Your task to perform on an android device: snooze an email in the gmail app Image 0: 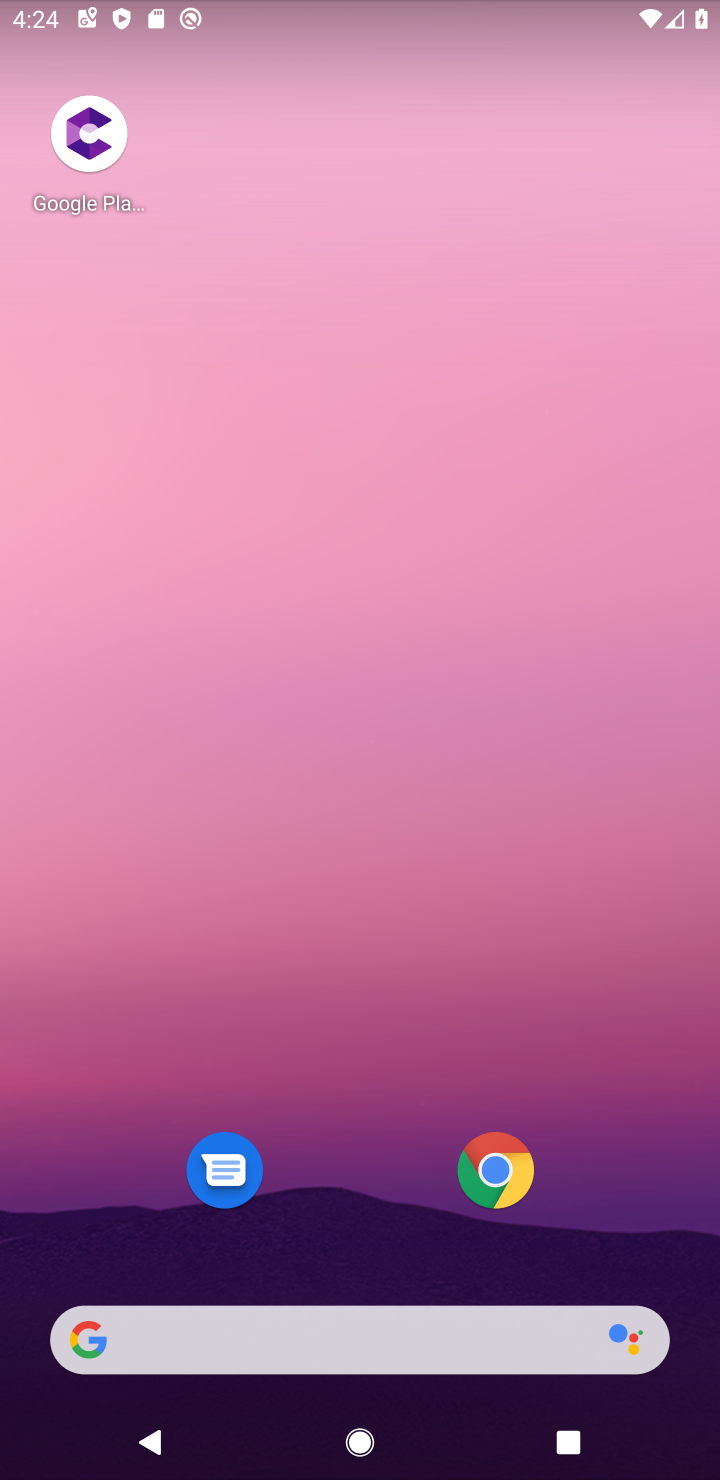
Step 0: drag from (350, 1315) to (405, 151)
Your task to perform on an android device: snooze an email in the gmail app Image 1: 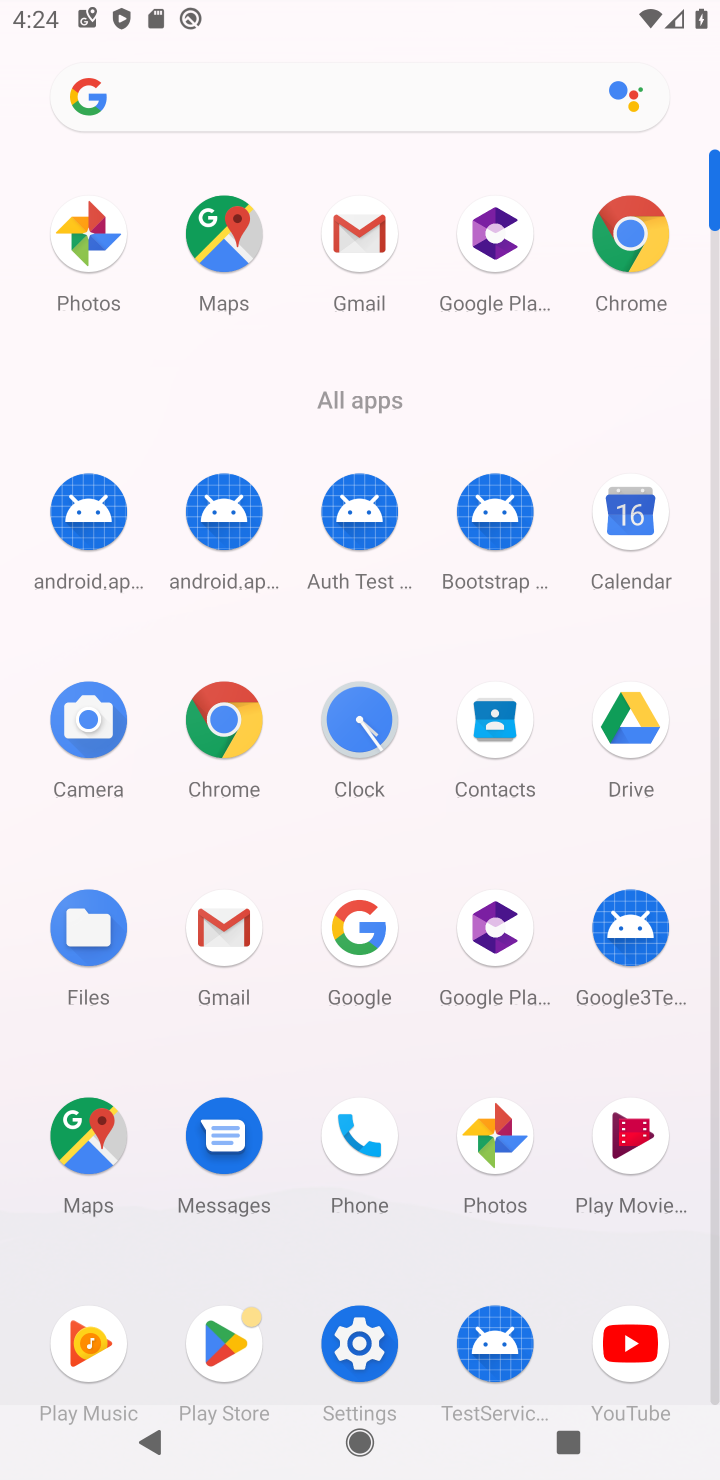
Step 1: click (244, 897)
Your task to perform on an android device: snooze an email in the gmail app Image 2: 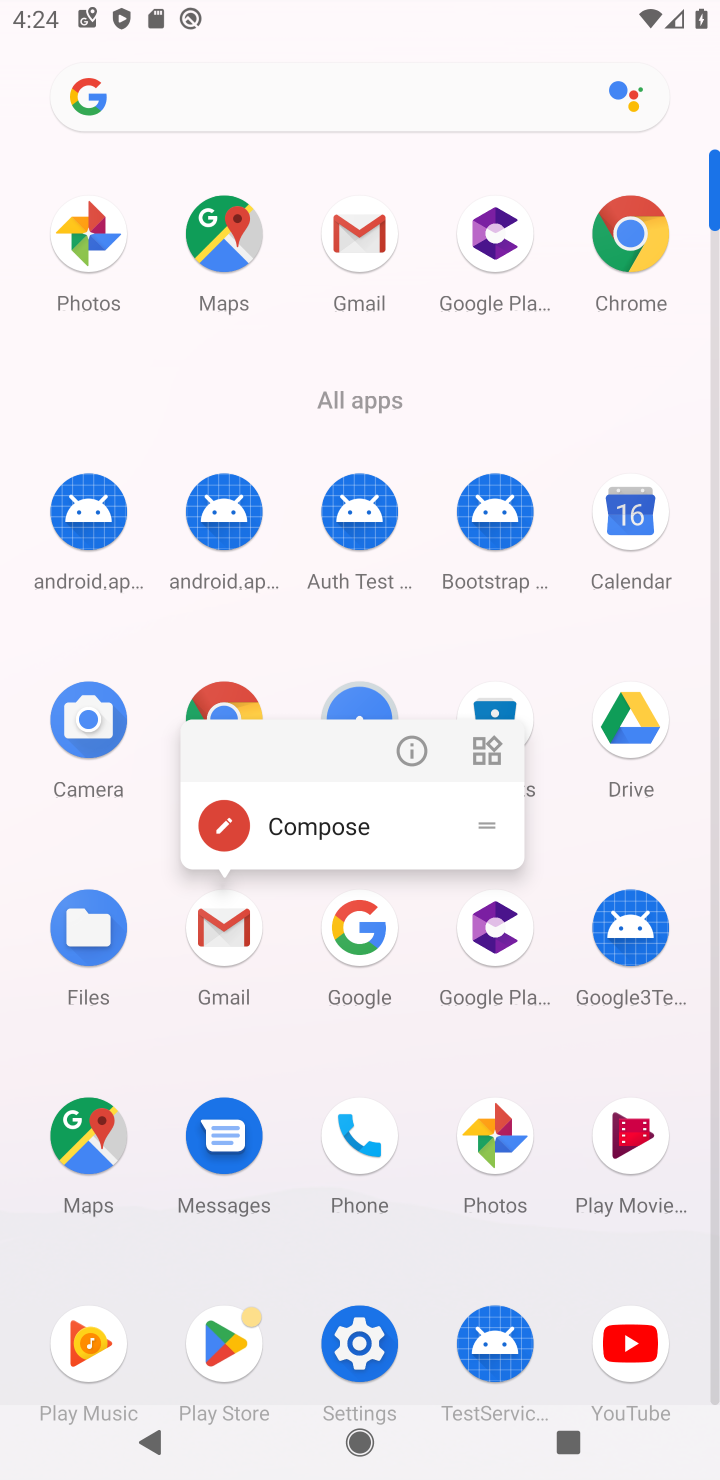
Step 2: click (219, 920)
Your task to perform on an android device: snooze an email in the gmail app Image 3: 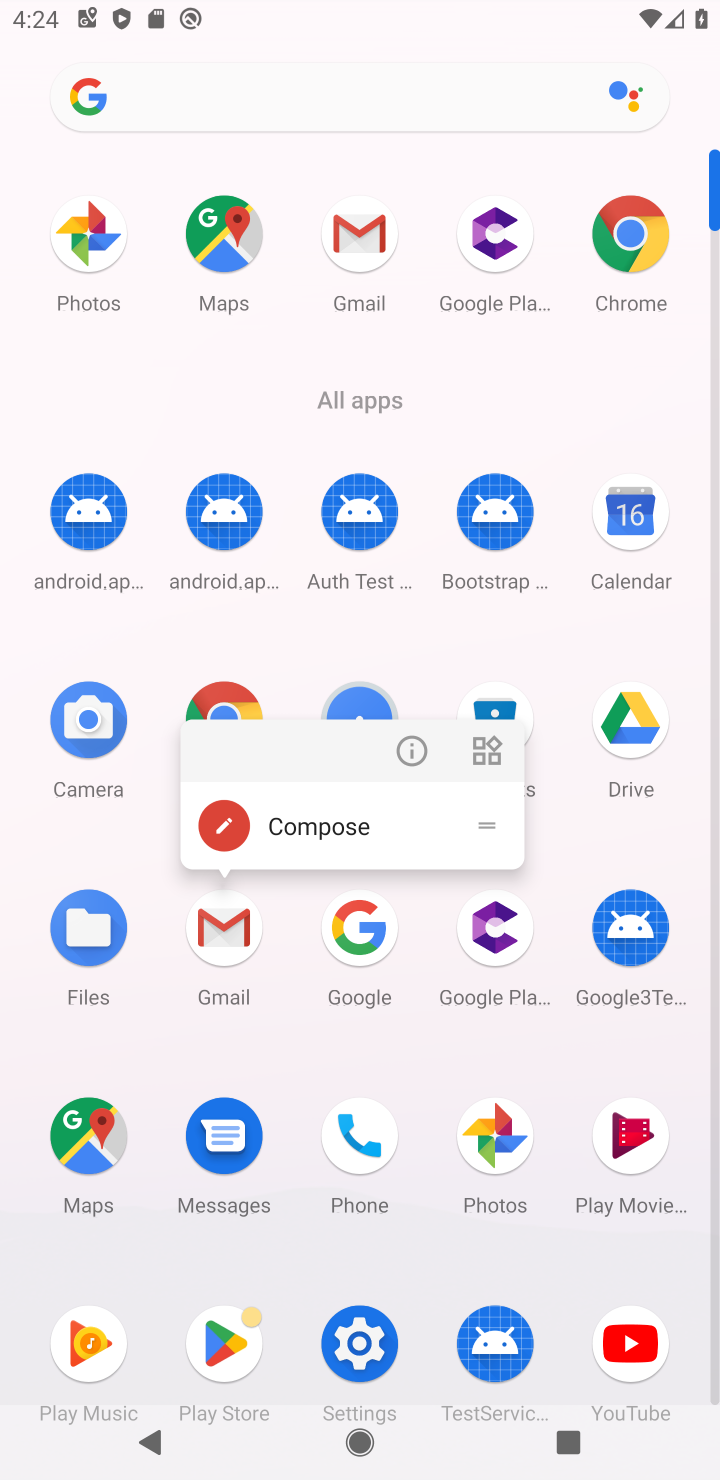
Step 3: click (210, 940)
Your task to perform on an android device: snooze an email in the gmail app Image 4: 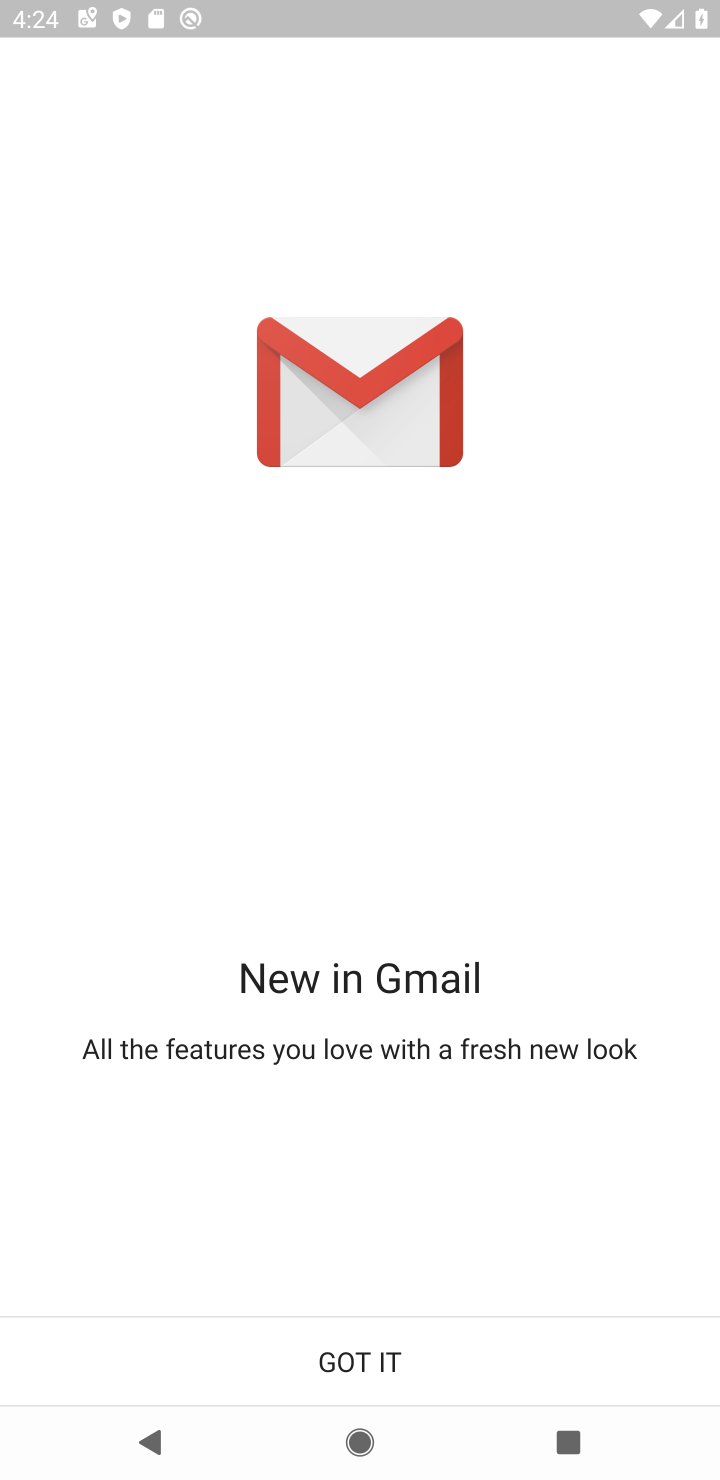
Step 4: click (321, 1389)
Your task to perform on an android device: snooze an email in the gmail app Image 5: 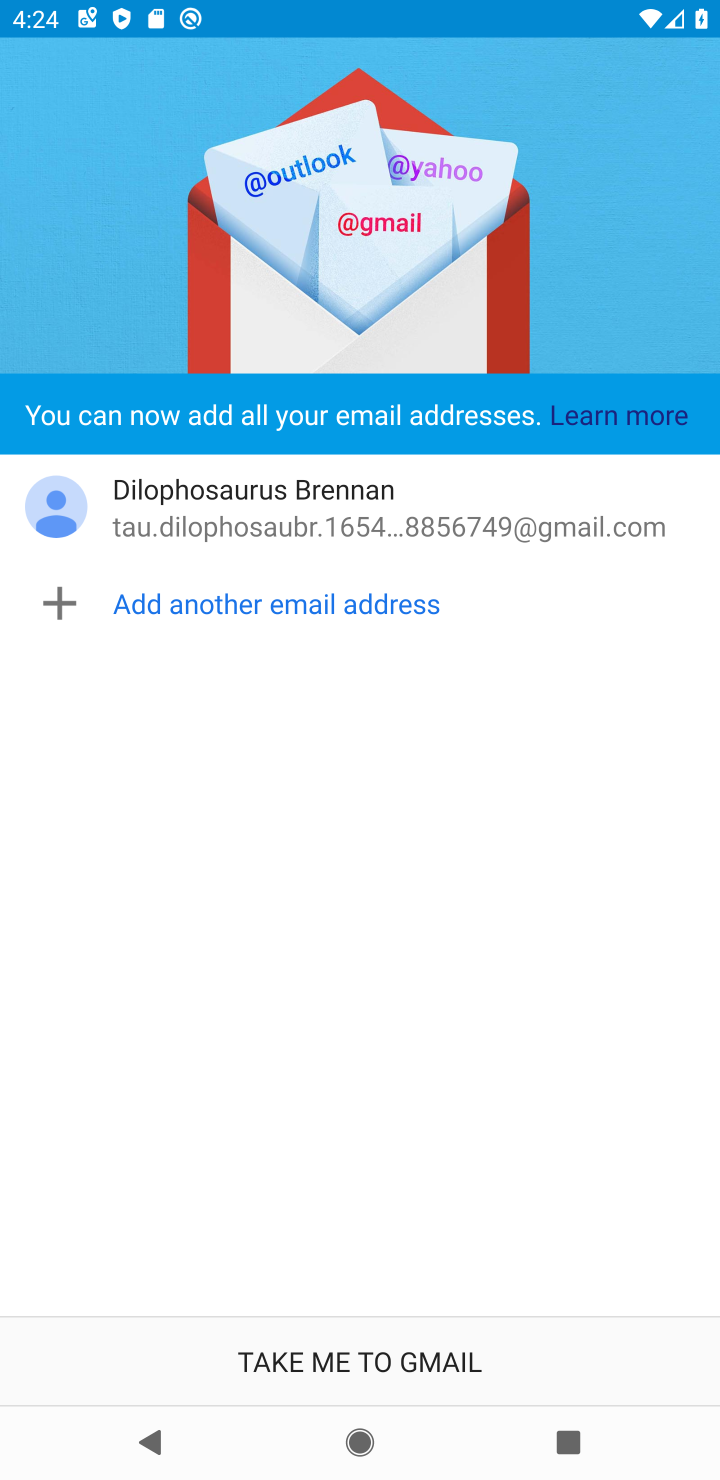
Step 5: click (361, 1330)
Your task to perform on an android device: snooze an email in the gmail app Image 6: 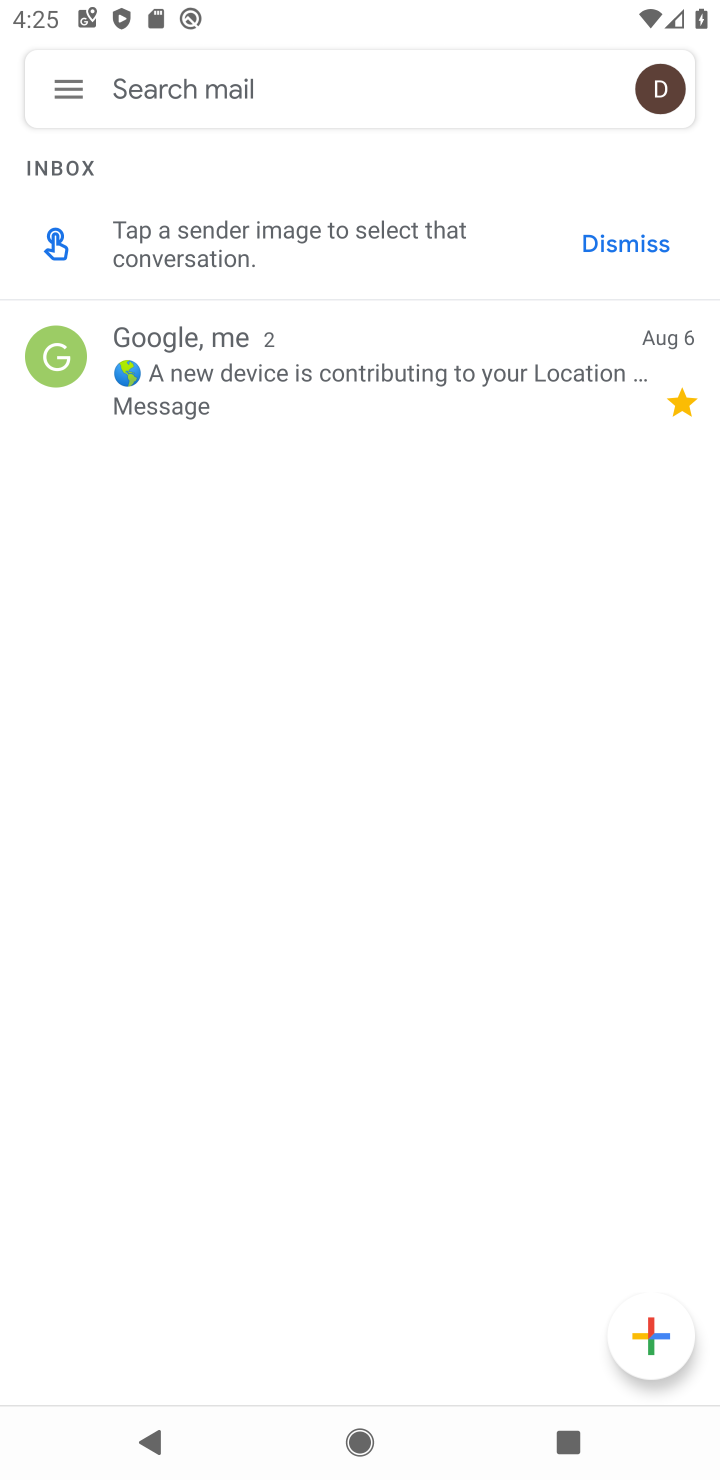
Step 6: click (372, 398)
Your task to perform on an android device: snooze an email in the gmail app Image 7: 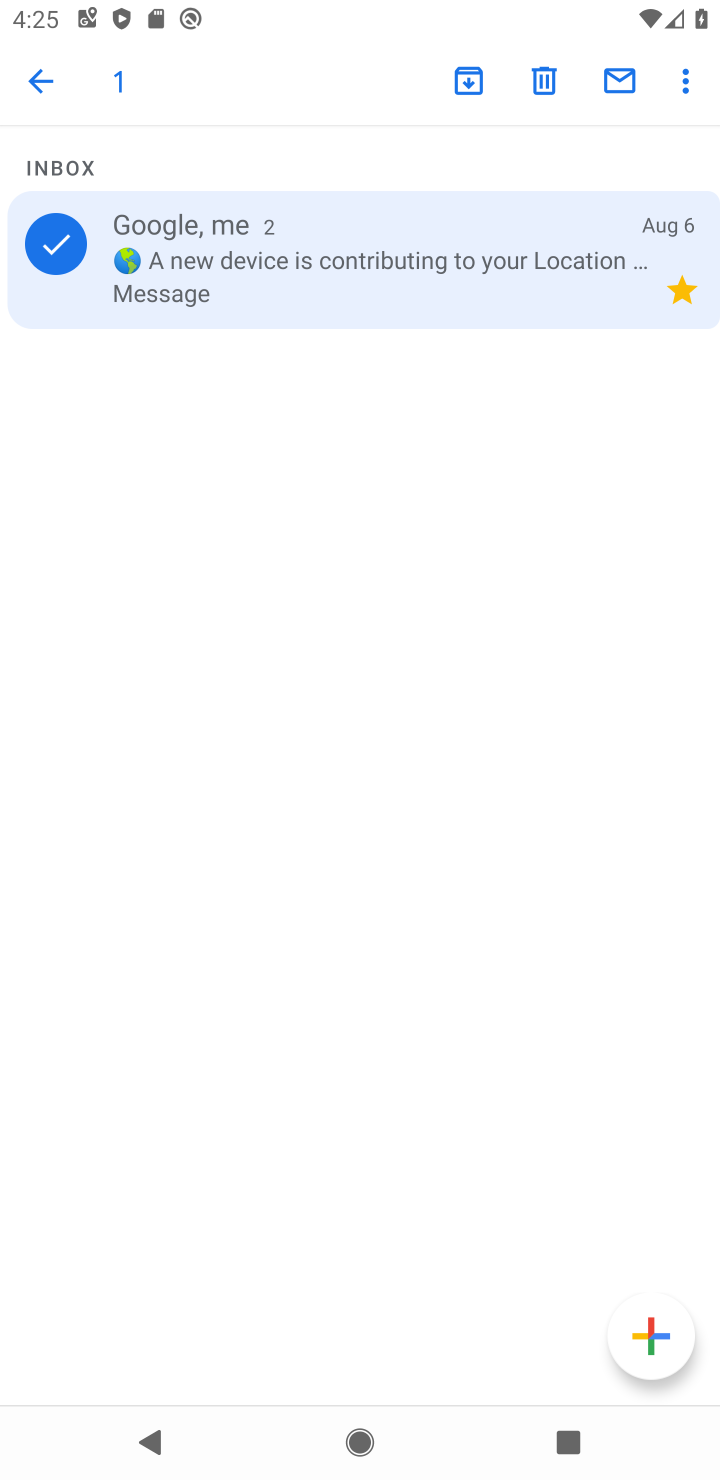
Step 7: click (687, 82)
Your task to perform on an android device: snooze an email in the gmail app Image 8: 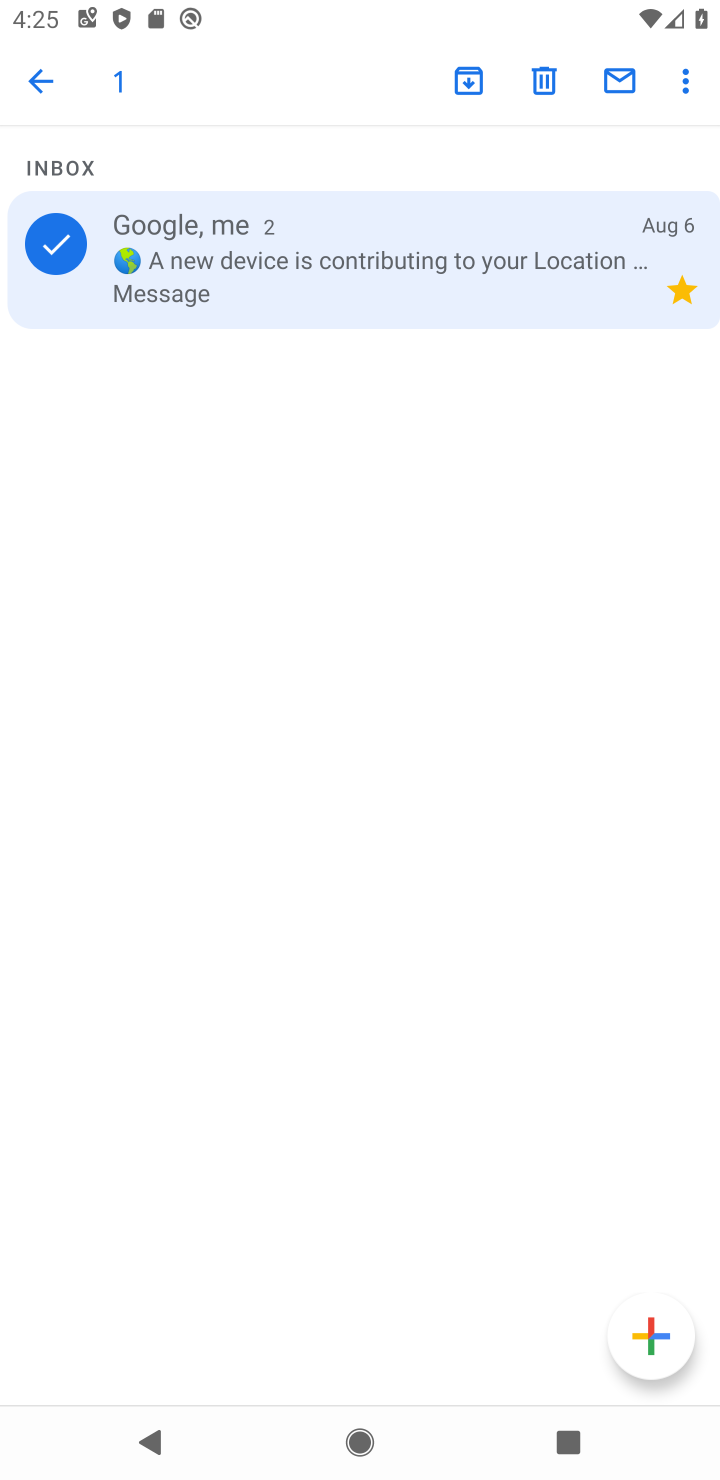
Step 8: click (661, 75)
Your task to perform on an android device: snooze an email in the gmail app Image 9: 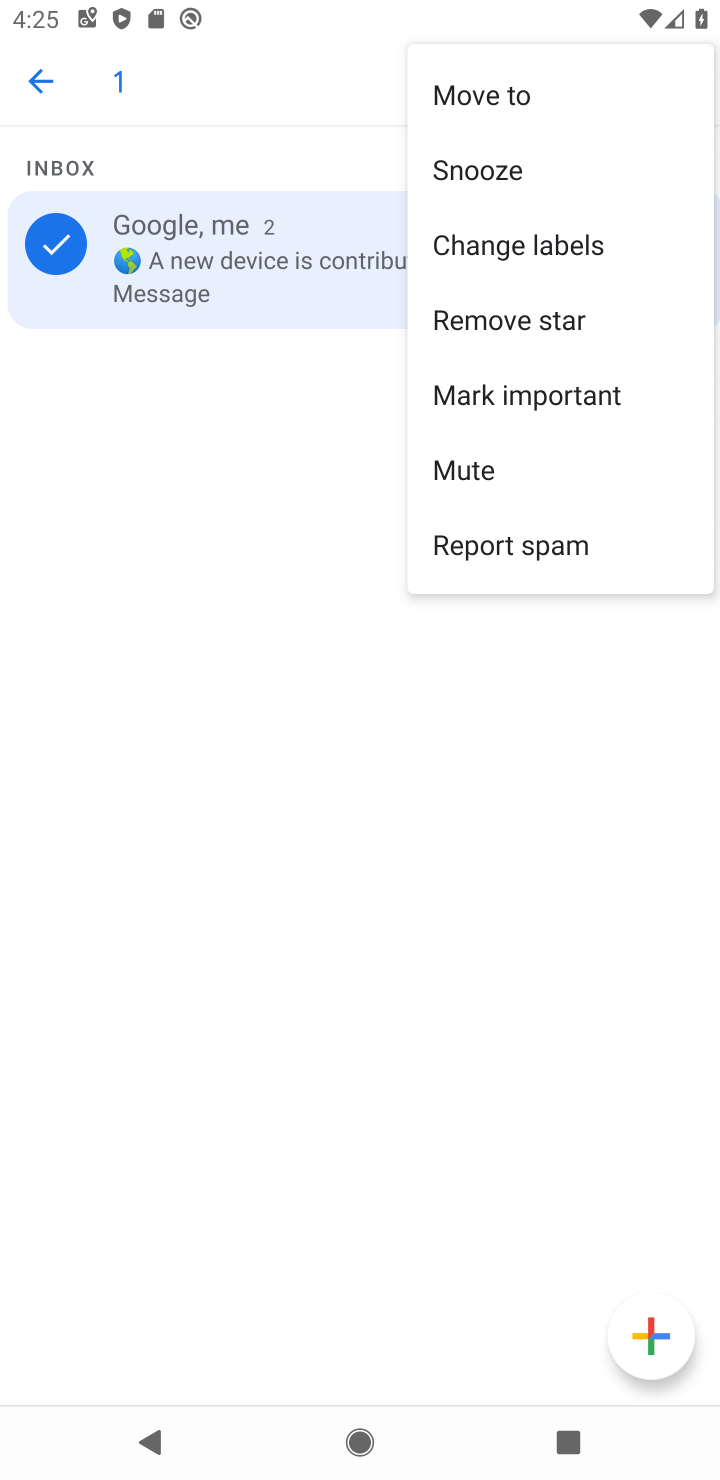
Step 9: click (478, 154)
Your task to perform on an android device: snooze an email in the gmail app Image 10: 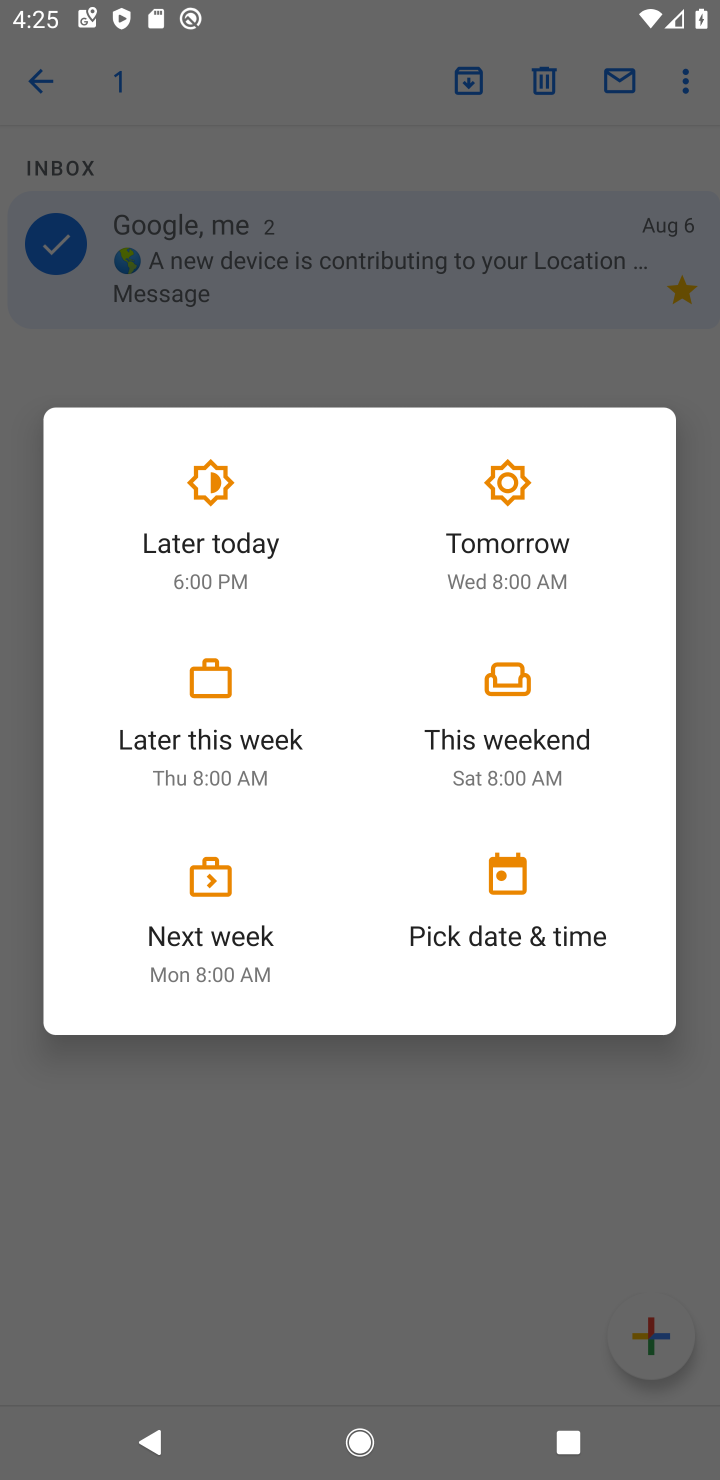
Step 10: click (251, 544)
Your task to perform on an android device: snooze an email in the gmail app Image 11: 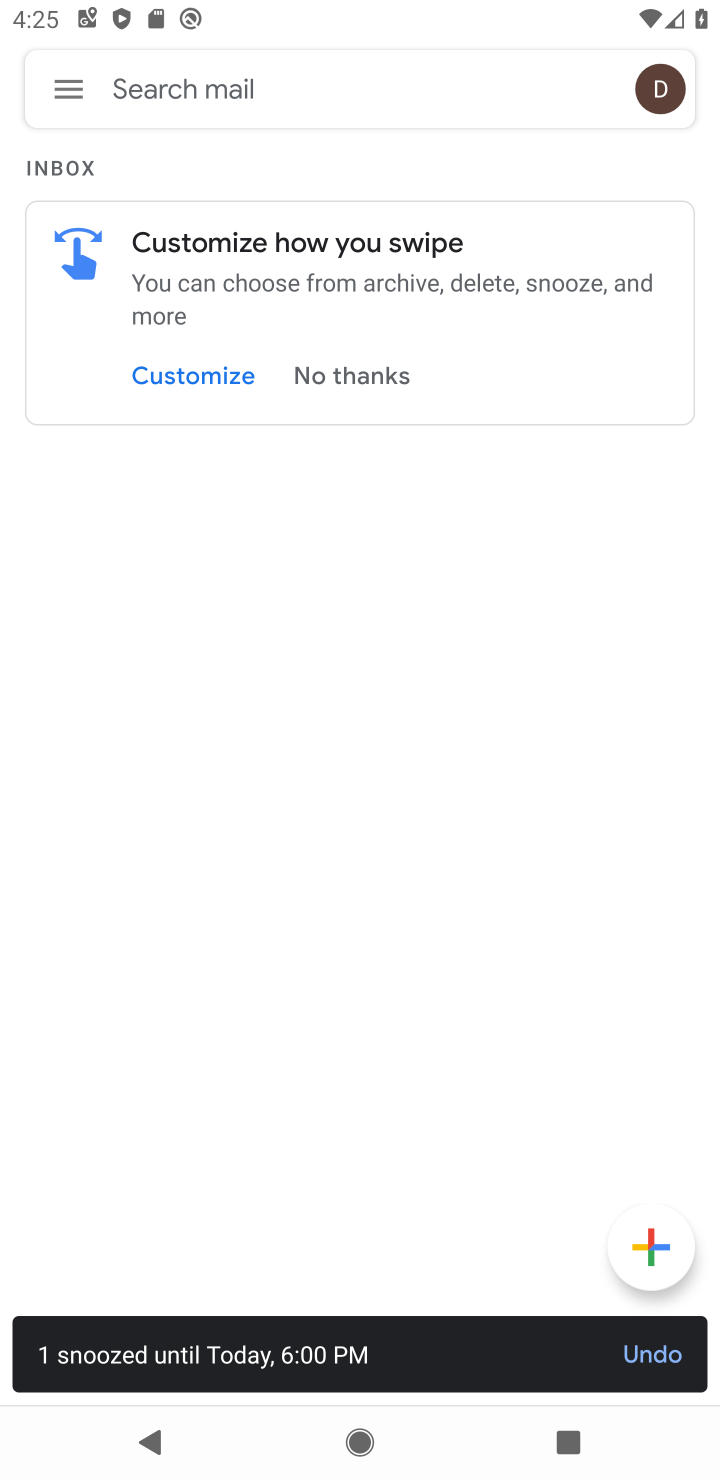
Step 11: task complete